Your task to perform on an android device: When is my next meeting? Image 0: 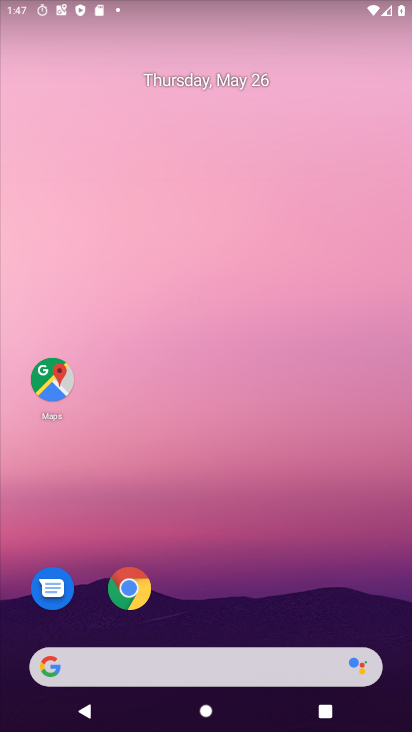
Step 0: drag from (387, 687) to (344, 147)
Your task to perform on an android device: When is my next meeting? Image 1: 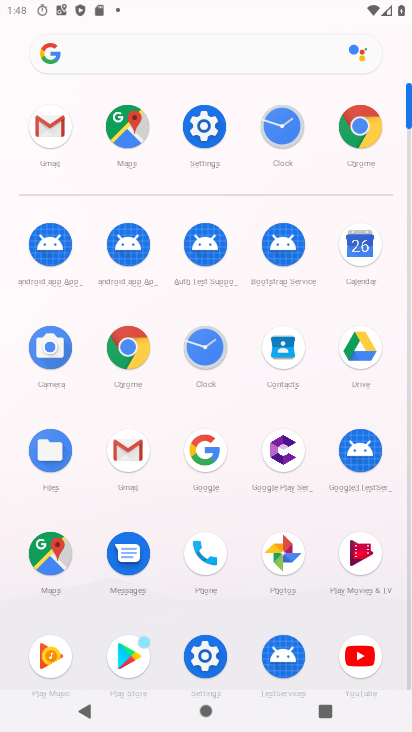
Step 1: click (352, 247)
Your task to perform on an android device: When is my next meeting? Image 2: 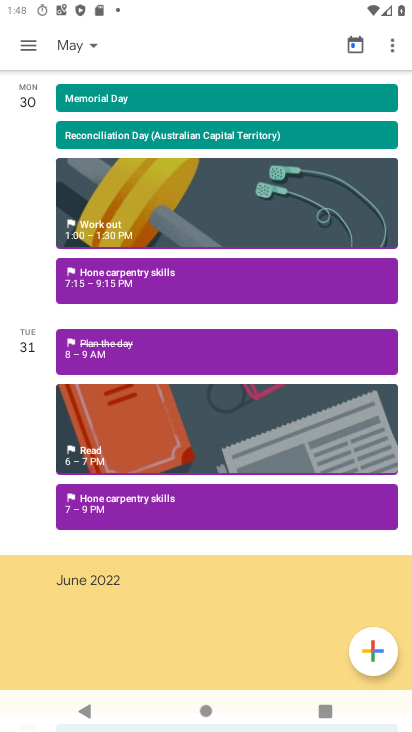
Step 2: click (29, 51)
Your task to perform on an android device: When is my next meeting? Image 3: 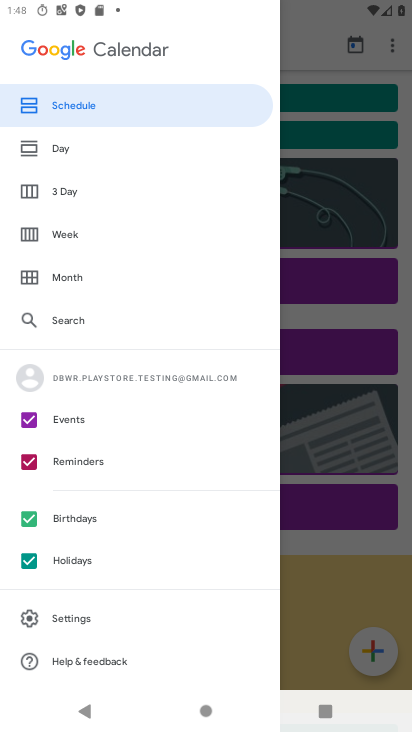
Step 3: click (28, 562)
Your task to perform on an android device: When is my next meeting? Image 4: 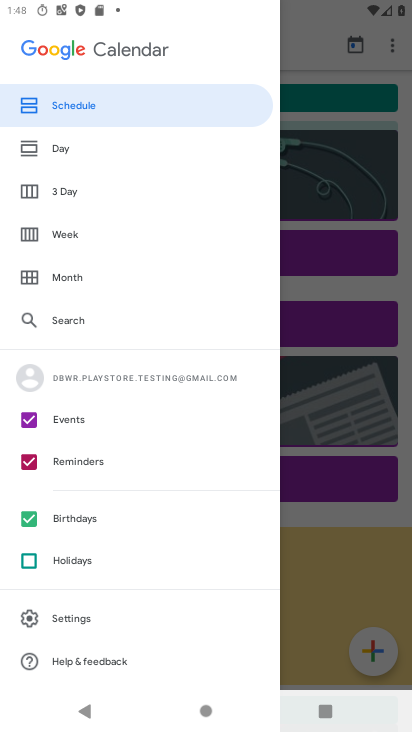
Step 4: click (28, 515)
Your task to perform on an android device: When is my next meeting? Image 5: 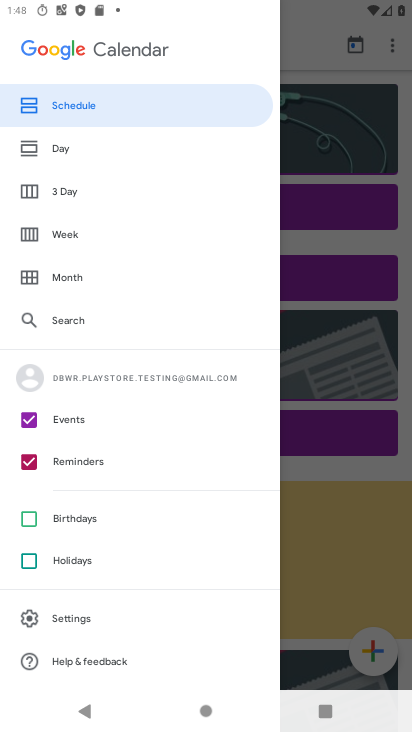
Step 5: click (28, 460)
Your task to perform on an android device: When is my next meeting? Image 6: 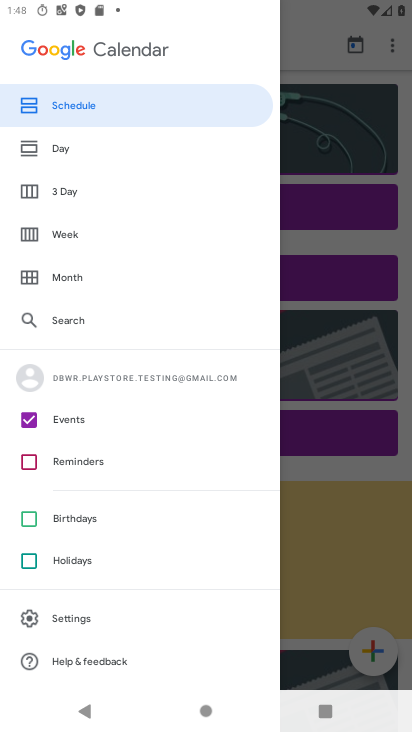
Step 6: click (118, 105)
Your task to perform on an android device: When is my next meeting? Image 7: 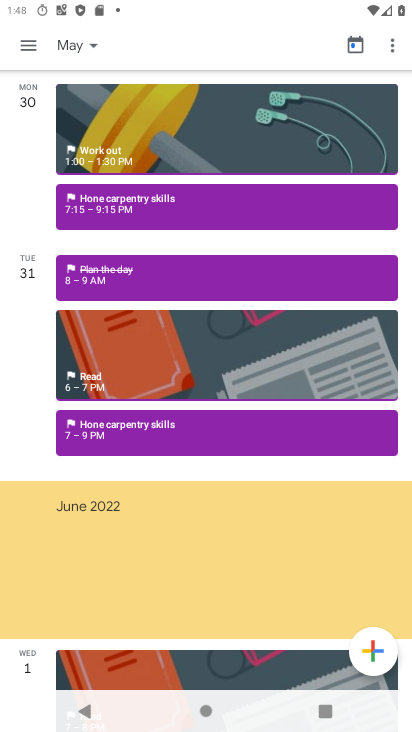
Step 7: click (79, 48)
Your task to perform on an android device: When is my next meeting? Image 8: 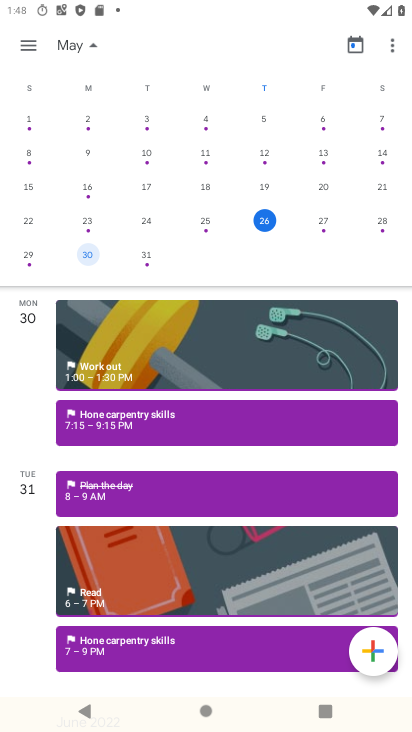
Step 8: click (268, 227)
Your task to perform on an android device: When is my next meeting? Image 9: 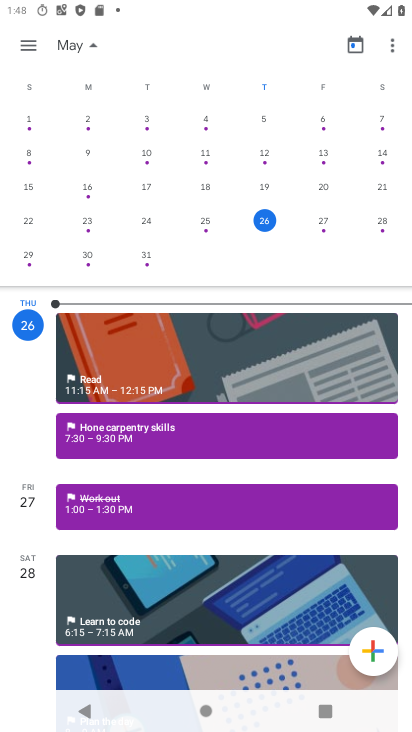
Step 9: task complete